Your task to perform on an android device: Show the shopping cart on bestbuy.com. Add "lenovo thinkpad" to the cart on bestbuy.com, then select checkout. Image 0: 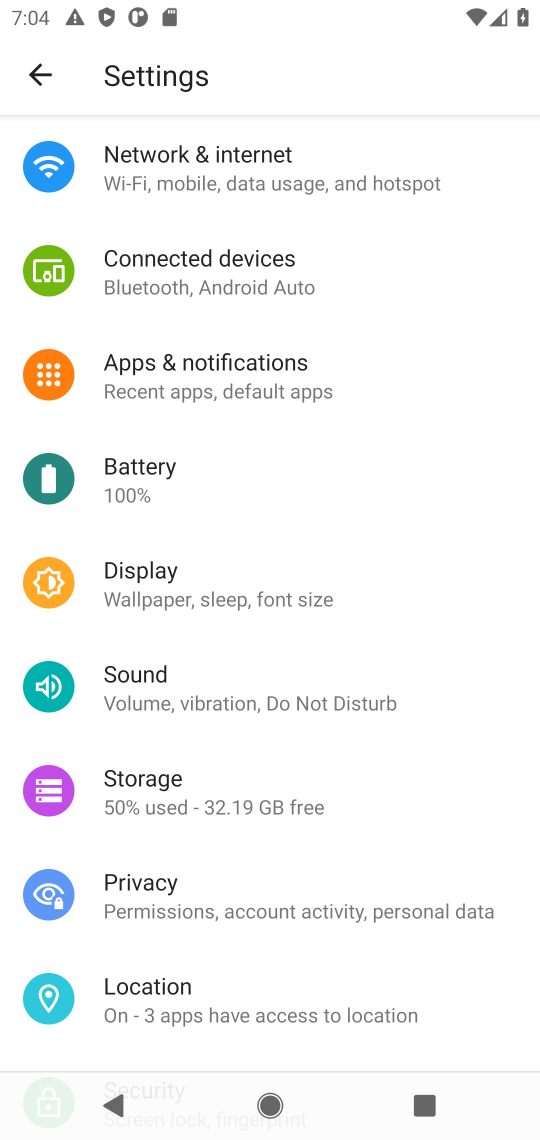
Step 0: press home button
Your task to perform on an android device: Show the shopping cart on bestbuy.com. Add "lenovo thinkpad" to the cart on bestbuy.com, then select checkout. Image 1: 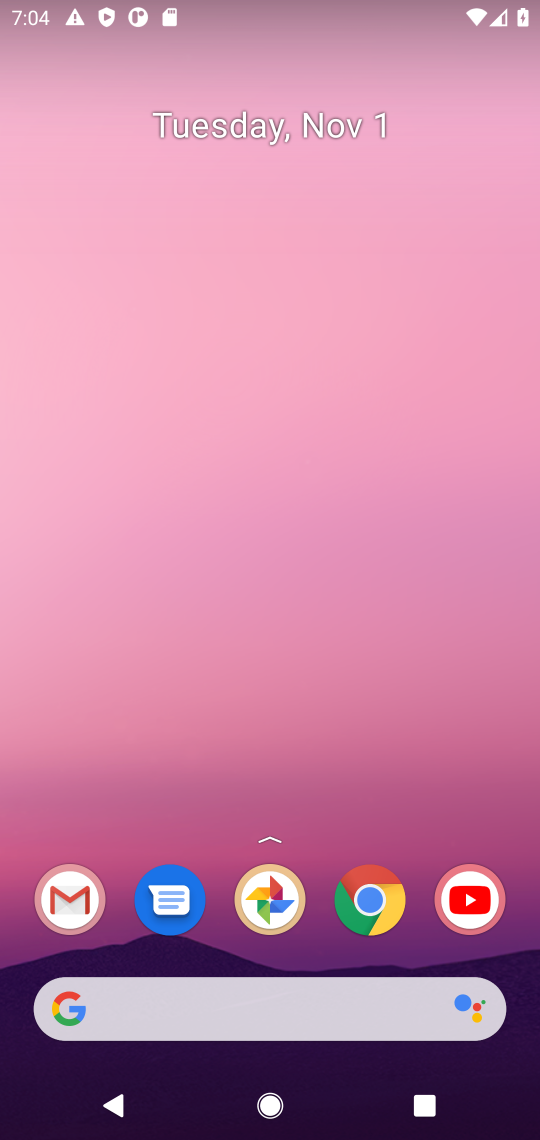
Step 1: drag from (344, 949) to (315, 114)
Your task to perform on an android device: Show the shopping cart on bestbuy.com. Add "lenovo thinkpad" to the cart on bestbuy.com, then select checkout. Image 2: 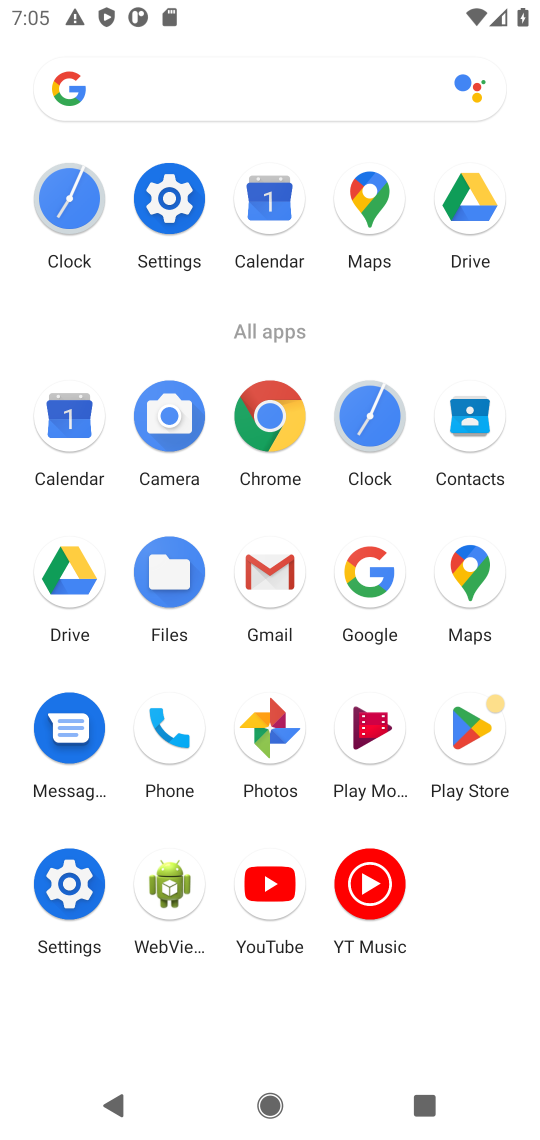
Step 2: click (266, 431)
Your task to perform on an android device: Show the shopping cart on bestbuy.com. Add "lenovo thinkpad" to the cart on bestbuy.com, then select checkout. Image 3: 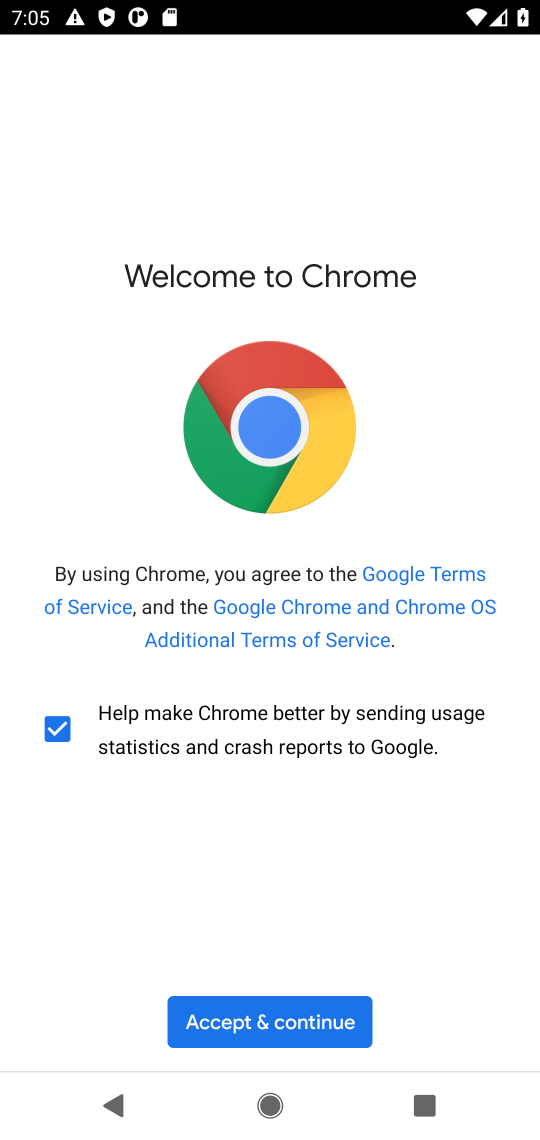
Step 3: click (257, 1028)
Your task to perform on an android device: Show the shopping cart on bestbuy.com. Add "lenovo thinkpad" to the cart on bestbuy.com, then select checkout. Image 4: 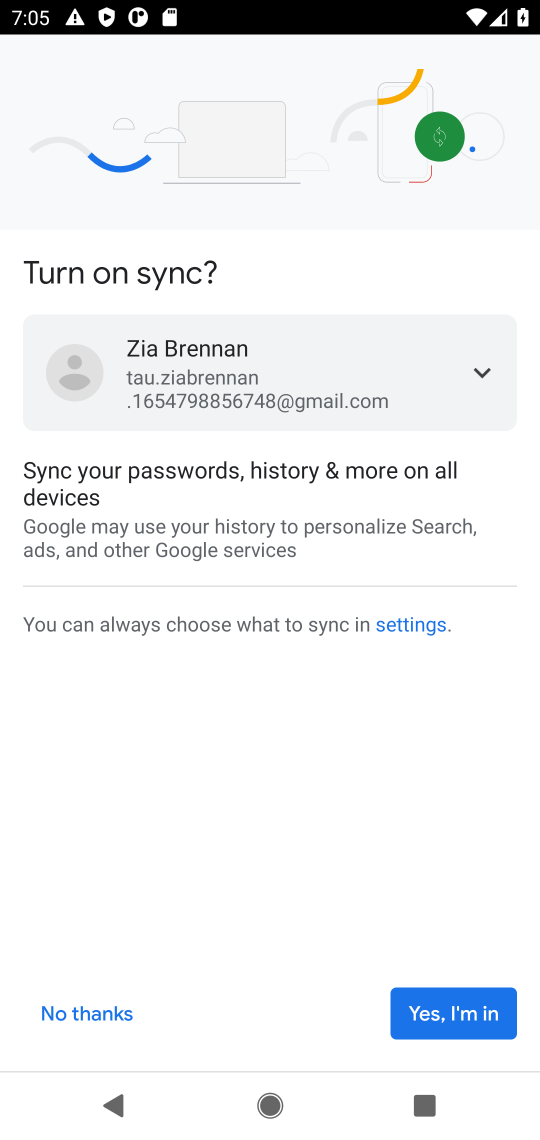
Step 4: click (430, 1018)
Your task to perform on an android device: Show the shopping cart on bestbuy.com. Add "lenovo thinkpad" to the cart on bestbuy.com, then select checkout. Image 5: 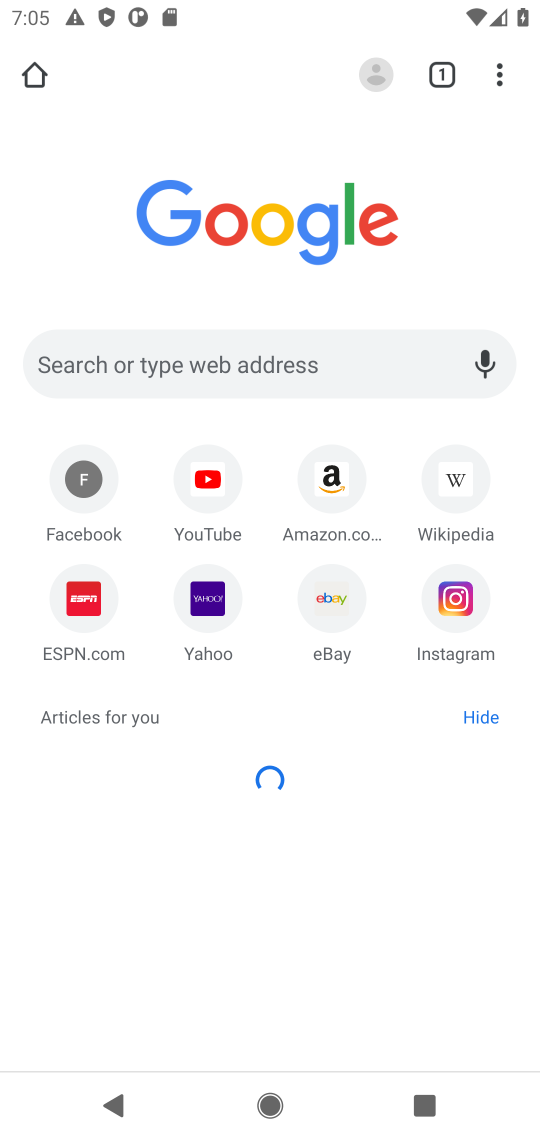
Step 5: click (260, 360)
Your task to perform on an android device: Show the shopping cart on bestbuy.com. Add "lenovo thinkpad" to the cart on bestbuy.com, then select checkout. Image 6: 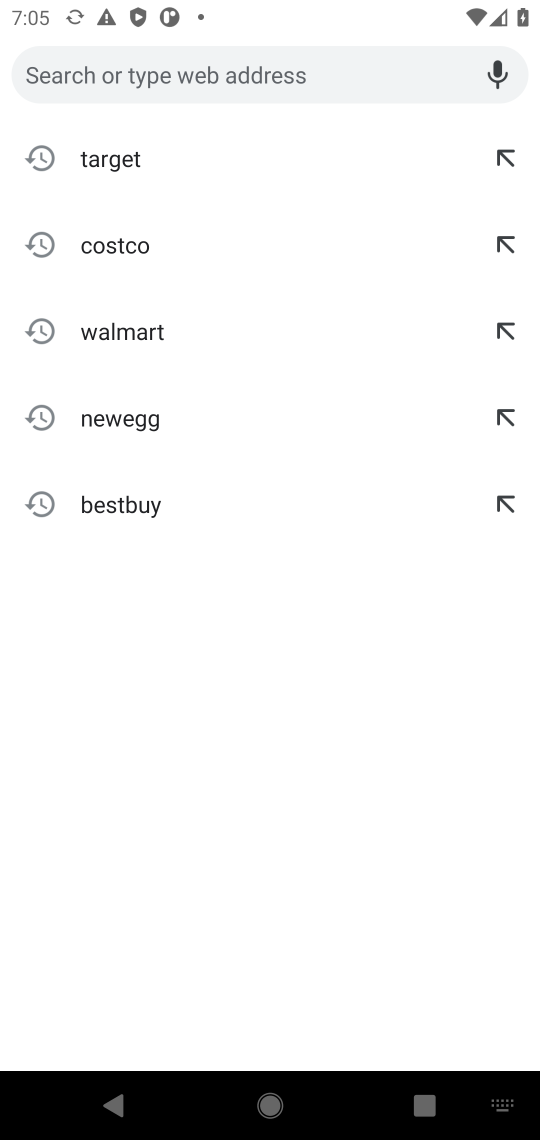
Step 6: type "bestbuy.com"
Your task to perform on an android device: Show the shopping cart on bestbuy.com. Add "lenovo thinkpad" to the cart on bestbuy.com, then select checkout. Image 7: 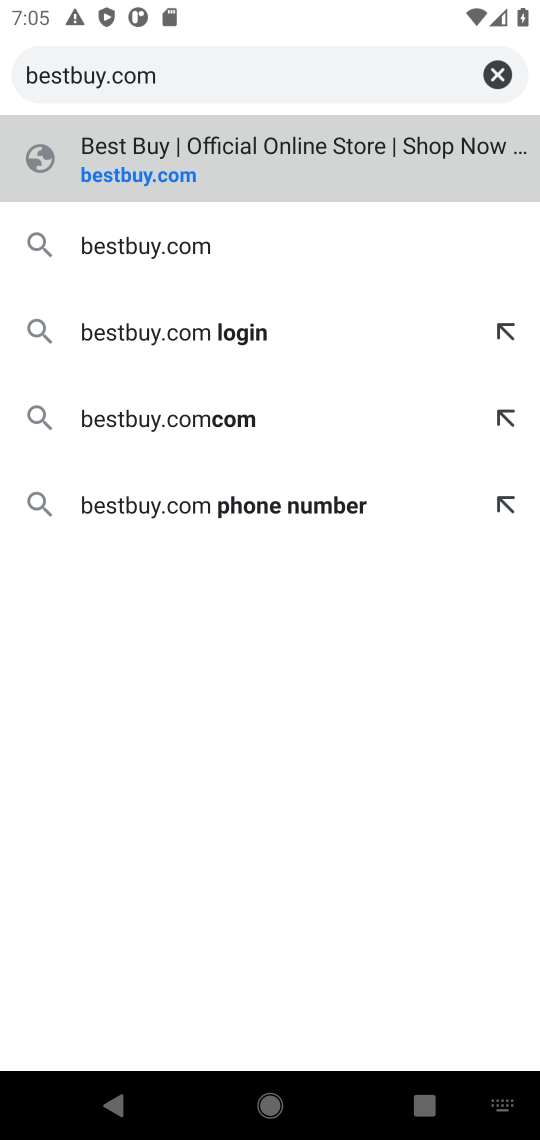
Step 7: press enter
Your task to perform on an android device: Show the shopping cart on bestbuy.com. Add "lenovo thinkpad" to the cart on bestbuy.com, then select checkout. Image 8: 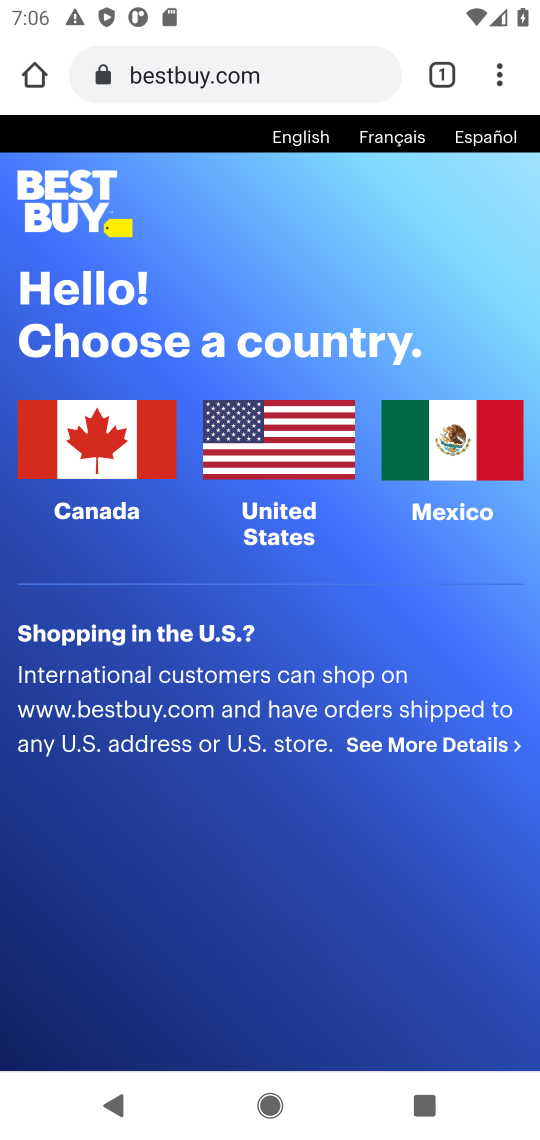
Step 8: click (96, 443)
Your task to perform on an android device: Show the shopping cart on bestbuy.com. Add "lenovo thinkpad" to the cart on bestbuy.com, then select checkout. Image 9: 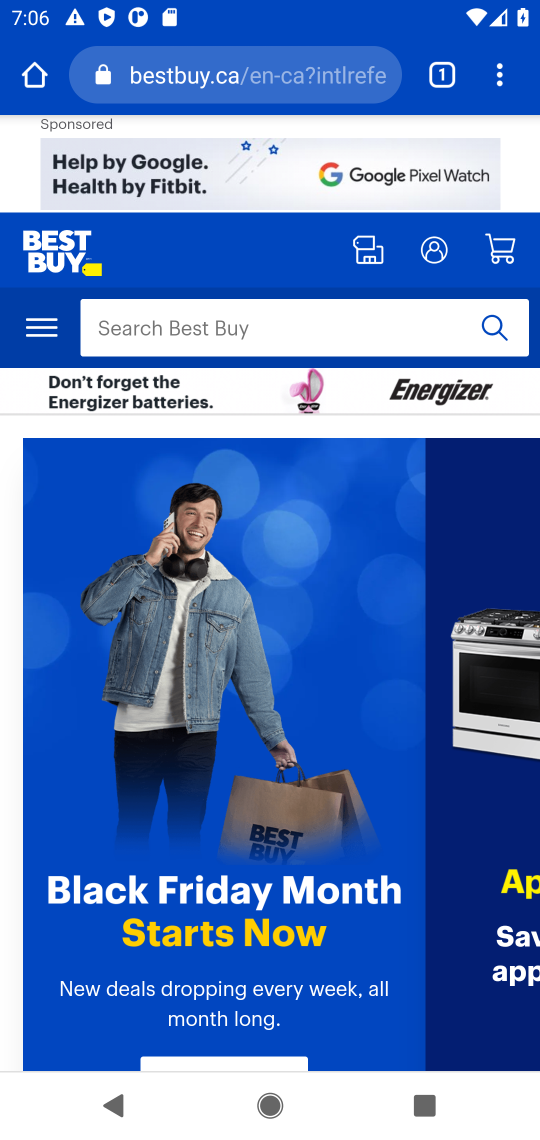
Step 9: click (207, 333)
Your task to perform on an android device: Show the shopping cart on bestbuy.com. Add "lenovo thinkpad" to the cart on bestbuy.com, then select checkout. Image 10: 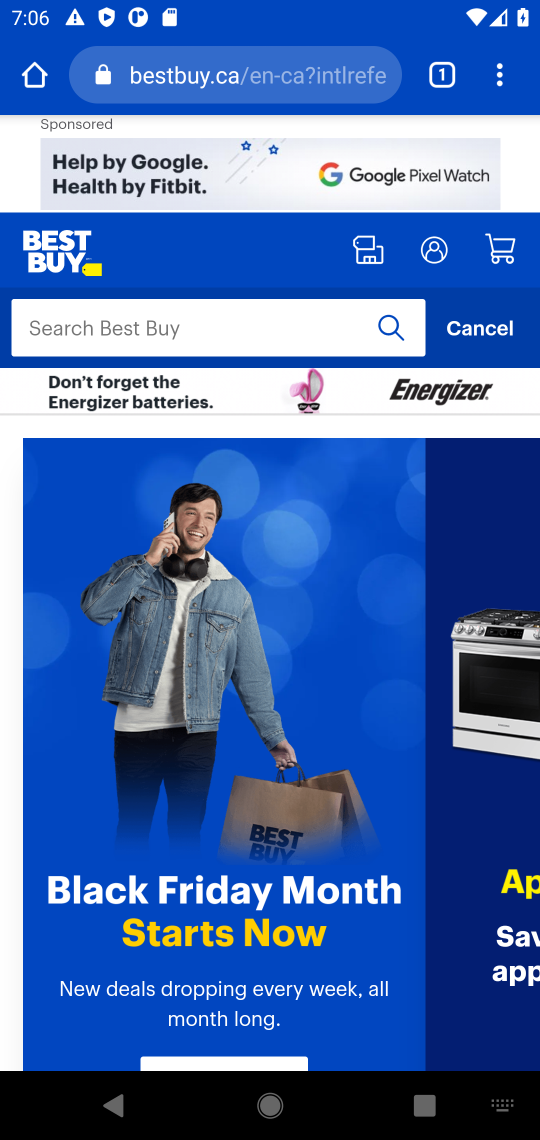
Step 10: type "lenovo thinkpad"
Your task to perform on an android device: Show the shopping cart on bestbuy.com. Add "lenovo thinkpad" to the cart on bestbuy.com, then select checkout. Image 11: 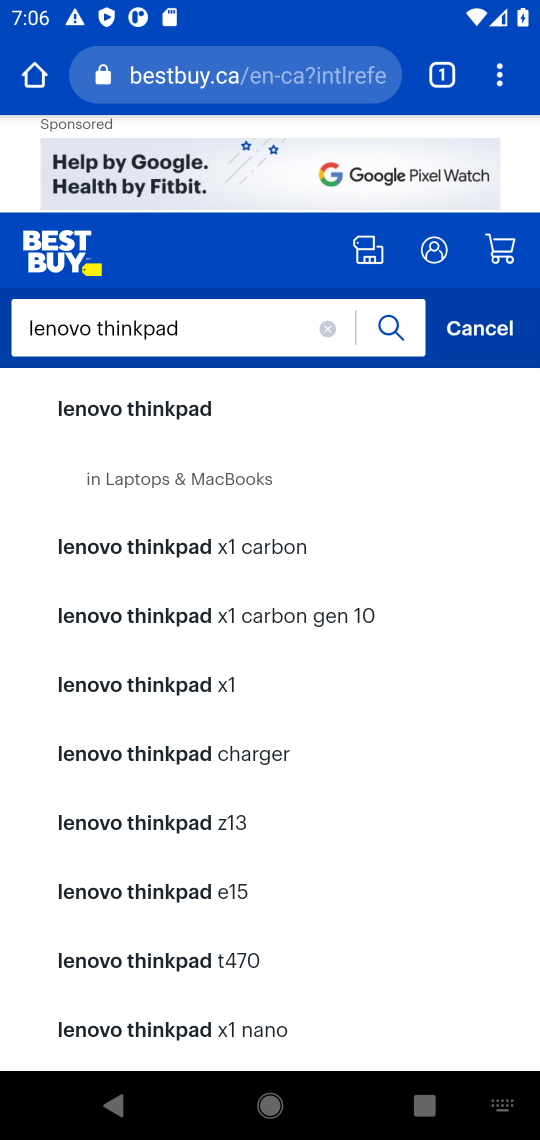
Step 11: press enter
Your task to perform on an android device: Show the shopping cart on bestbuy.com. Add "lenovo thinkpad" to the cart on bestbuy.com, then select checkout. Image 12: 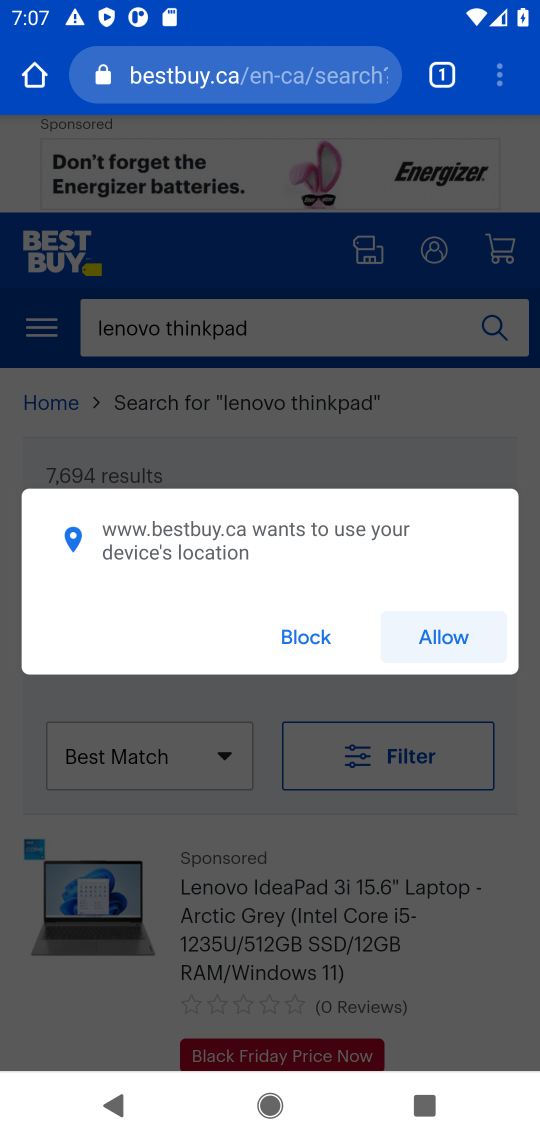
Step 12: click (285, 639)
Your task to perform on an android device: Show the shopping cart on bestbuy.com. Add "lenovo thinkpad" to the cart on bestbuy.com, then select checkout. Image 13: 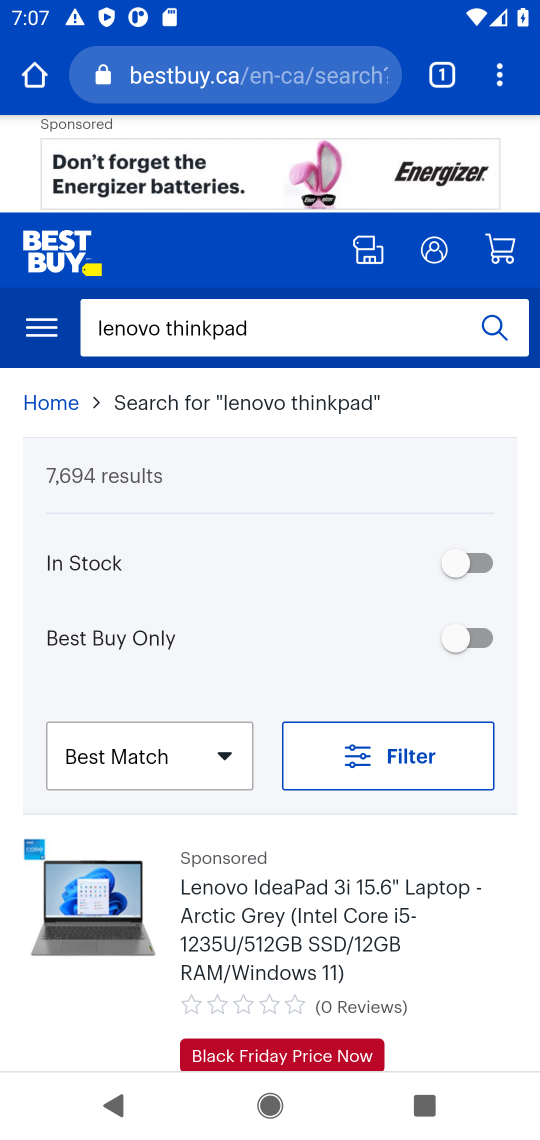
Step 13: drag from (270, 885) to (278, 246)
Your task to perform on an android device: Show the shopping cart on bestbuy.com. Add "lenovo thinkpad" to the cart on bestbuy.com, then select checkout. Image 14: 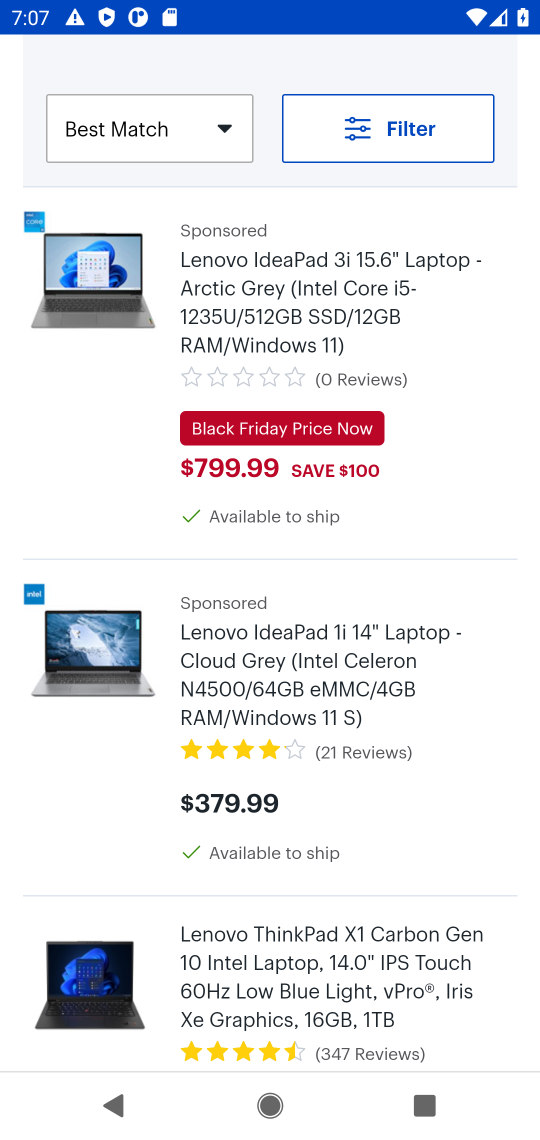
Step 14: drag from (225, 966) to (287, 512)
Your task to perform on an android device: Show the shopping cart on bestbuy.com. Add "lenovo thinkpad" to the cart on bestbuy.com, then select checkout. Image 15: 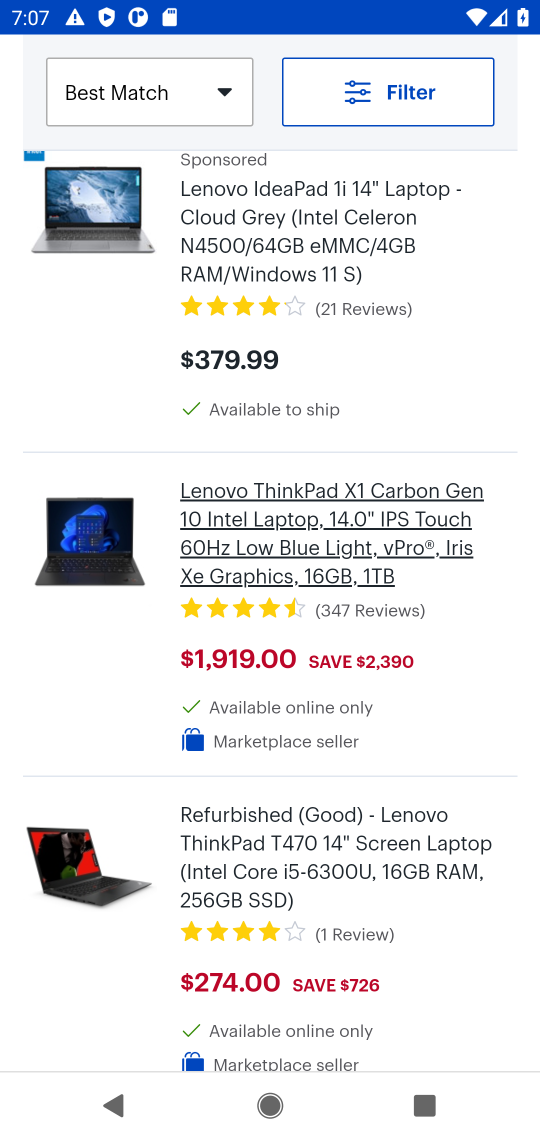
Step 15: click (271, 524)
Your task to perform on an android device: Show the shopping cart on bestbuy.com. Add "lenovo thinkpad" to the cart on bestbuy.com, then select checkout. Image 16: 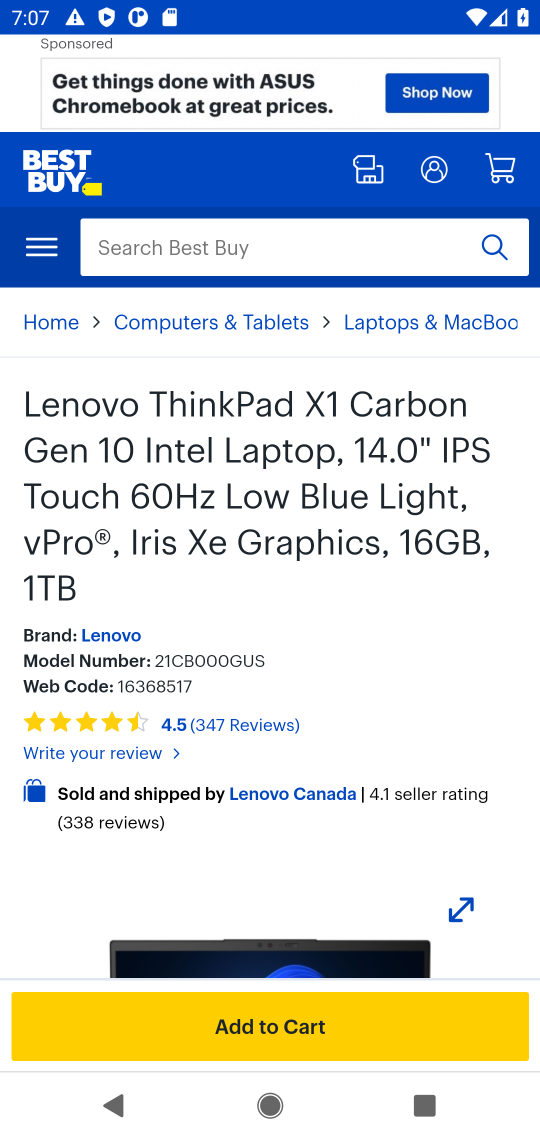
Step 16: drag from (134, 890) to (165, 419)
Your task to perform on an android device: Show the shopping cart on bestbuy.com. Add "lenovo thinkpad" to the cart on bestbuy.com, then select checkout. Image 17: 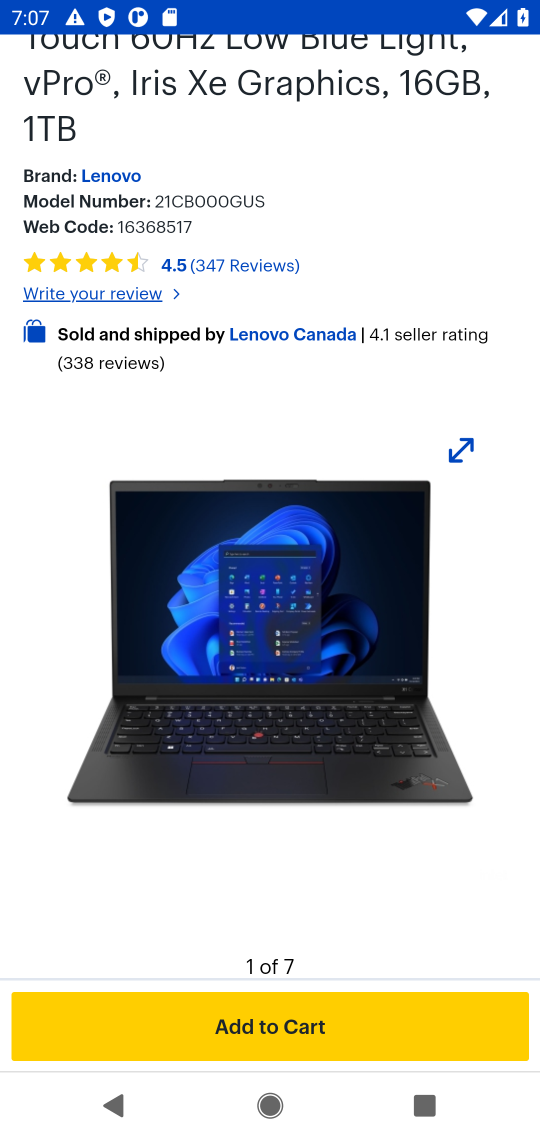
Step 17: click (300, 1028)
Your task to perform on an android device: Show the shopping cart on bestbuy.com. Add "lenovo thinkpad" to the cart on bestbuy.com, then select checkout. Image 18: 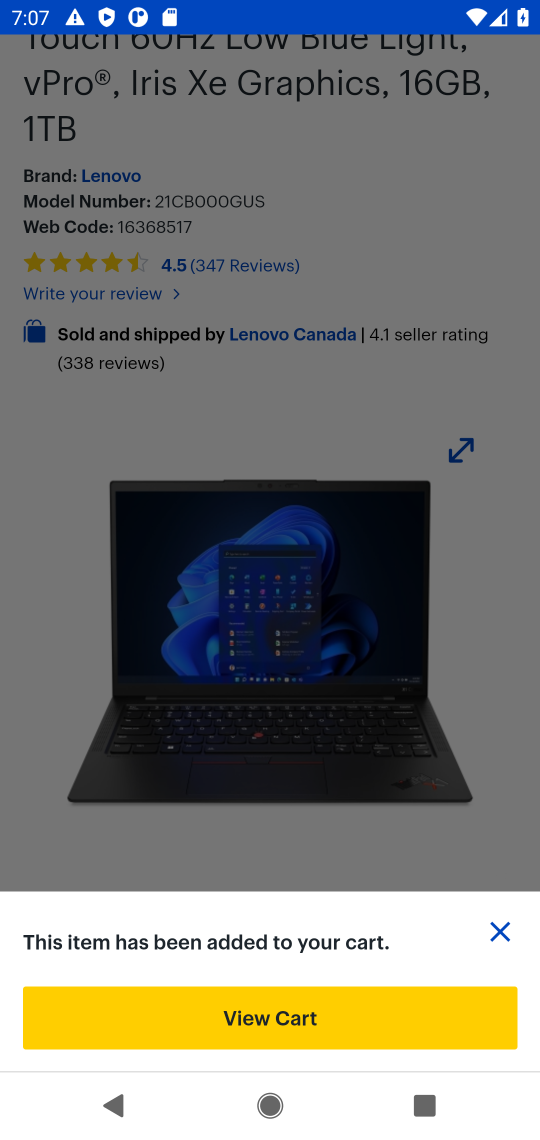
Step 18: click (309, 1017)
Your task to perform on an android device: Show the shopping cart on bestbuy.com. Add "lenovo thinkpad" to the cart on bestbuy.com, then select checkout. Image 19: 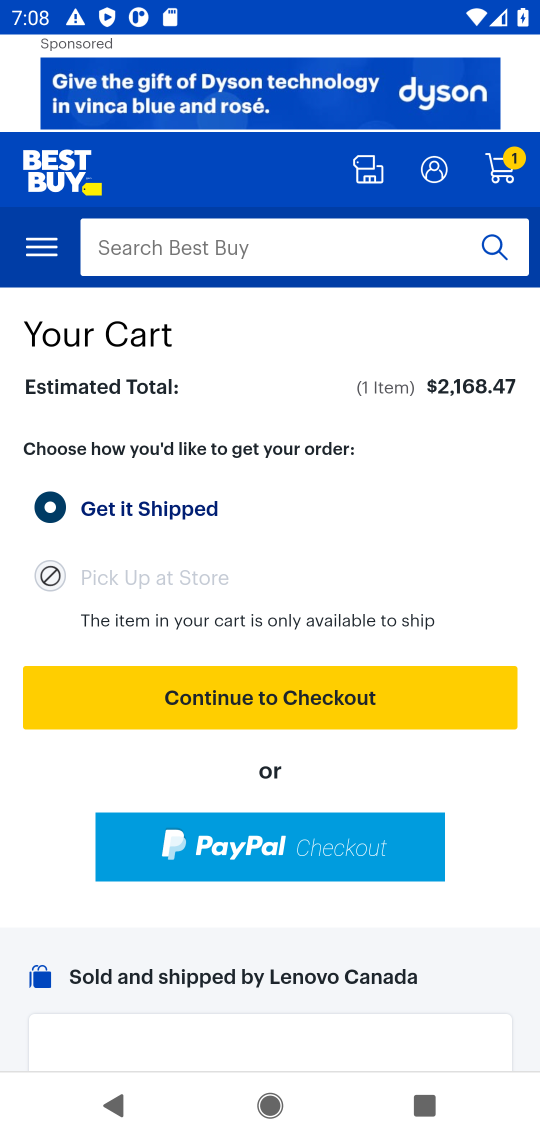
Step 19: click (347, 696)
Your task to perform on an android device: Show the shopping cart on bestbuy.com. Add "lenovo thinkpad" to the cart on bestbuy.com, then select checkout. Image 20: 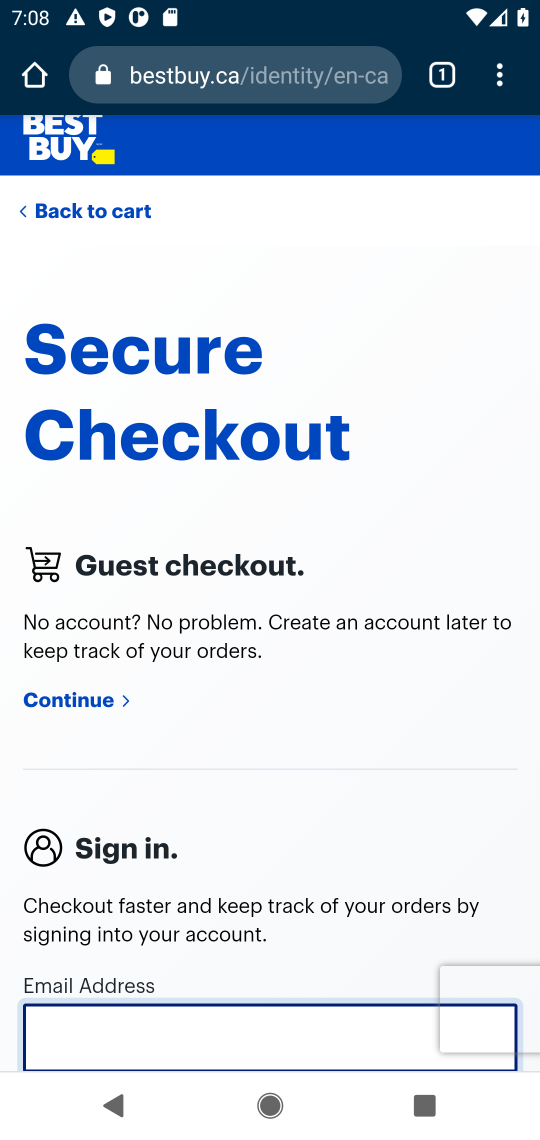
Step 20: task complete